Your task to perform on an android device: Open the map Image 0: 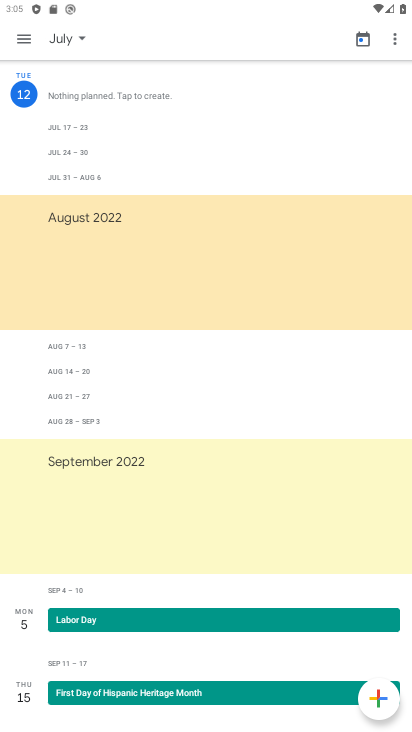
Step 0: press home button
Your task to perform on an android device: Open the map Image 1: 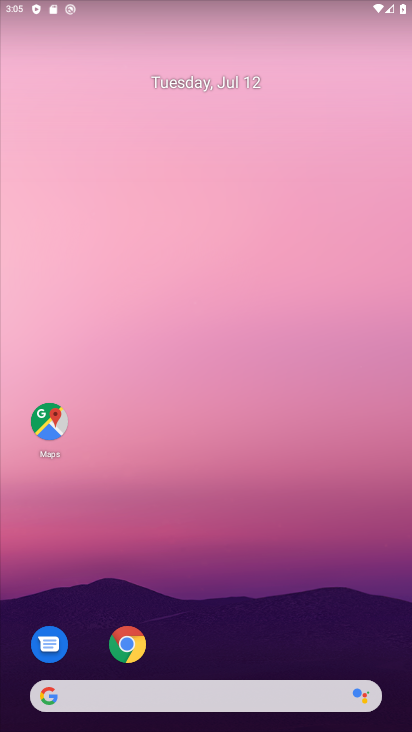
Step 1: drag from (293, 561) to (204, 101)
Your task to perform on an android device: Open the map Image 2: 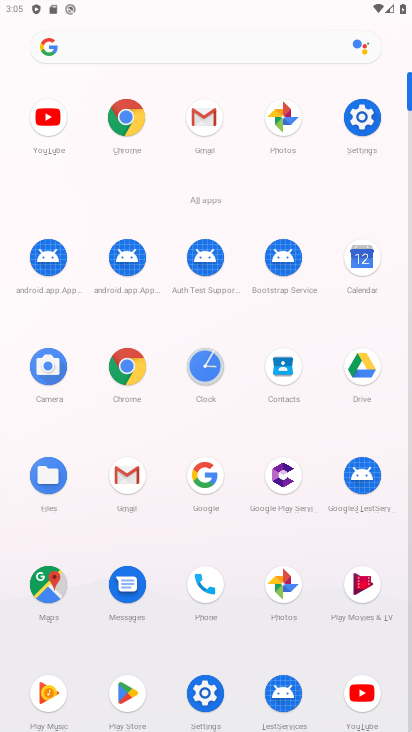
Step 2: click (59, 584)
Your task to perform on an android device: Open the map Image 3: 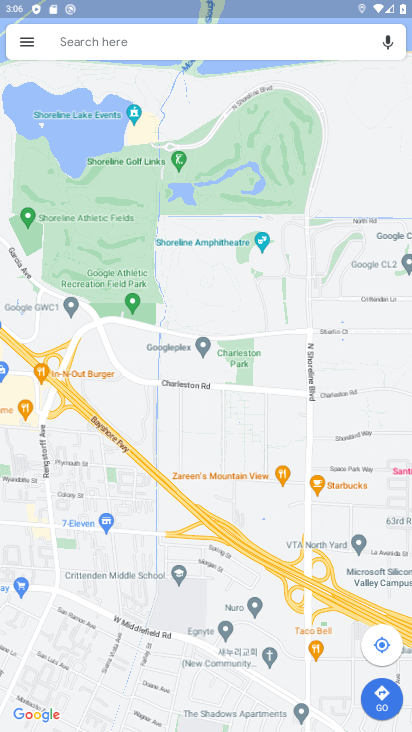
Step 3: task complete